Your task to perform on an android device: Go to eBay Image 0: 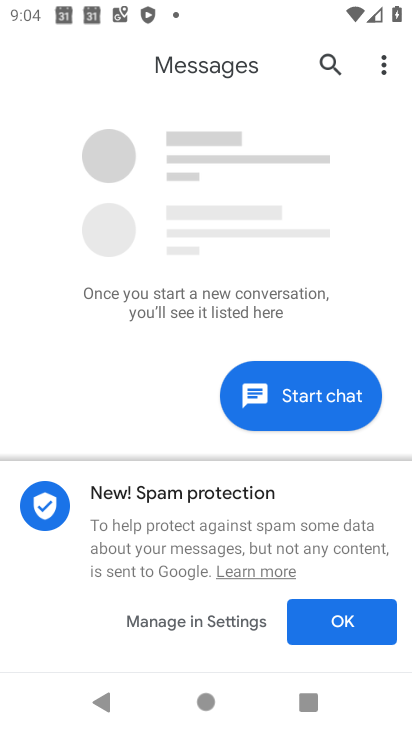
Step 0: press home button
Your task to perform on an android device: Go to eBay Image 1: 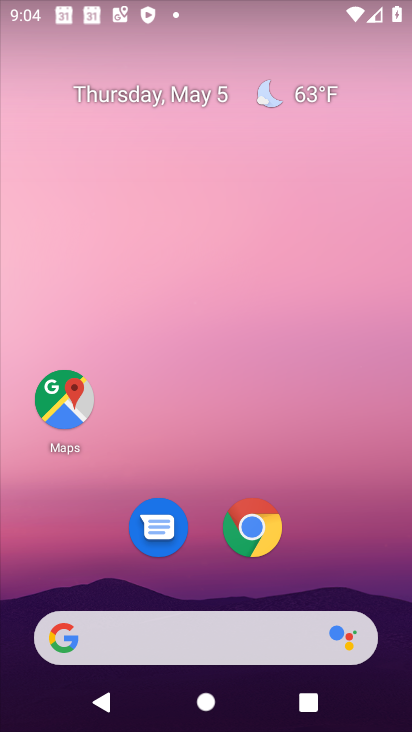
Step 1: click (195, 645)
Your task to perform on an android device: Go to eBay Image 2: 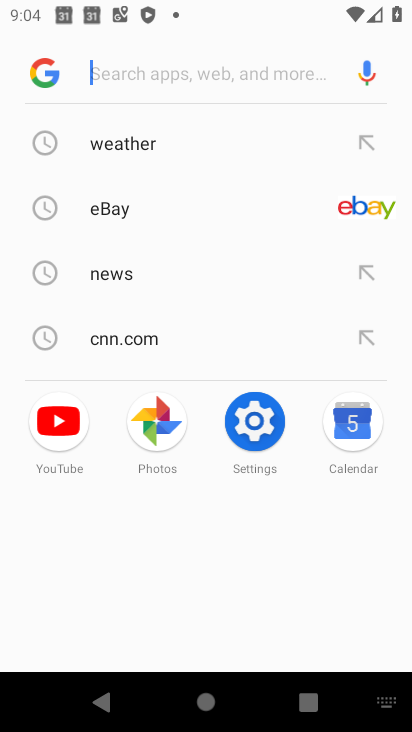
Step 2: click (315, 210)
Your task to perform on an android device: Go to eBay Image 3: 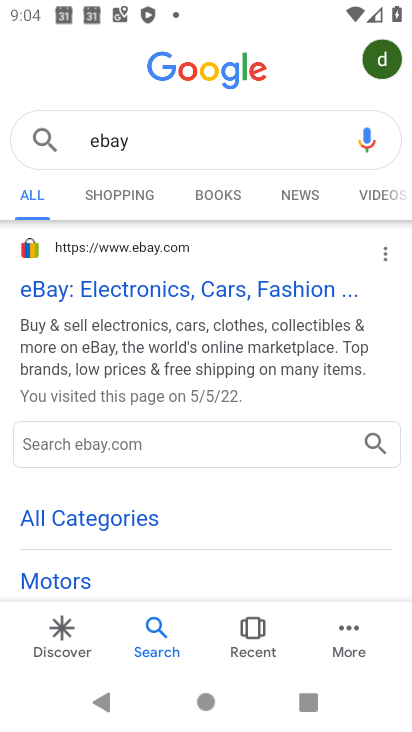
Step 3: click (153, 288)
Your task to perform on an android device: Go to eBay Image 4: 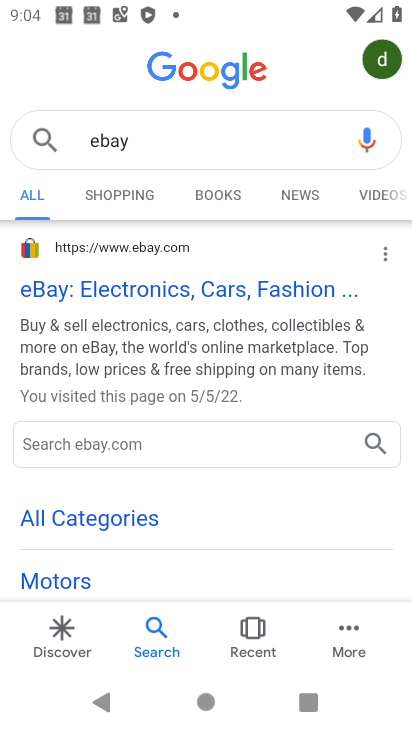
Step 4: click (162, 252)
Your task to perform on an android device: Go to eBay Image 5: 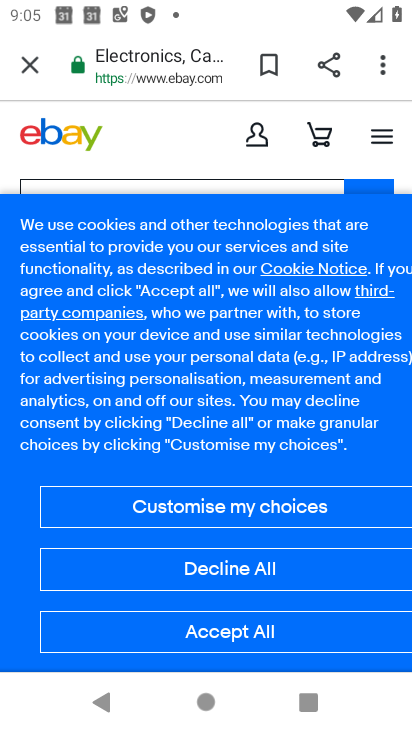
Step 5: task complete